Your task to perform on an android device: Go to sound settings Image 0: 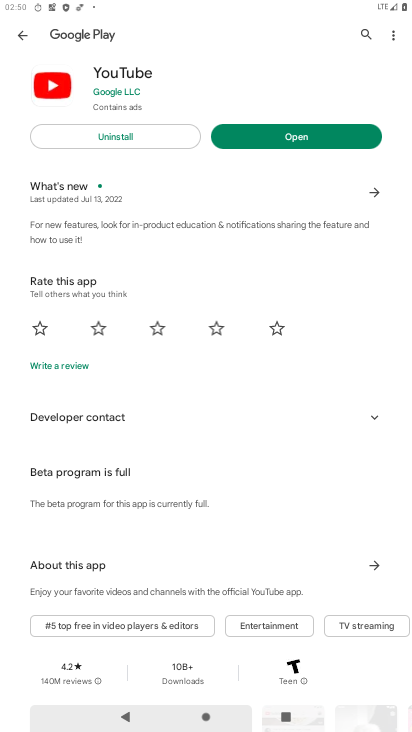
Step 0: press home button
Your task to perform on an android device: Go to sound settings Image 1: 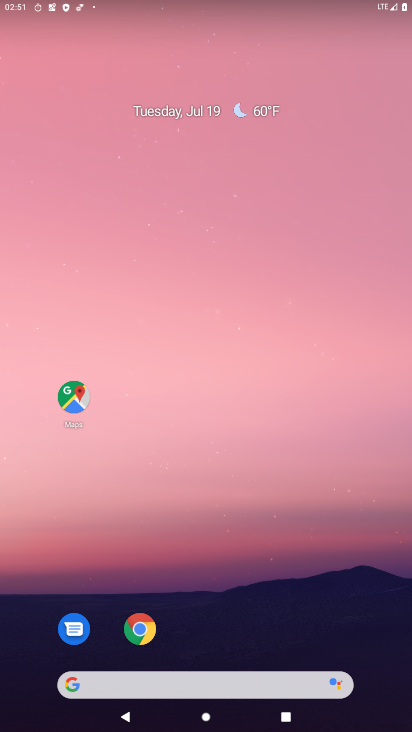
Step 1: drag from (216, 620) to (229, 200)
Your task to perform on an android device: Go to sound settings Image 2: 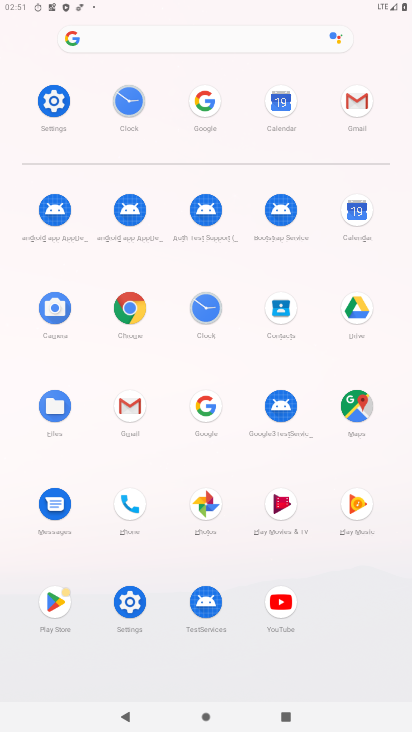
Step 2: click (75, 104)
Your task to perform on an android device: Go to sound settings Image 3: 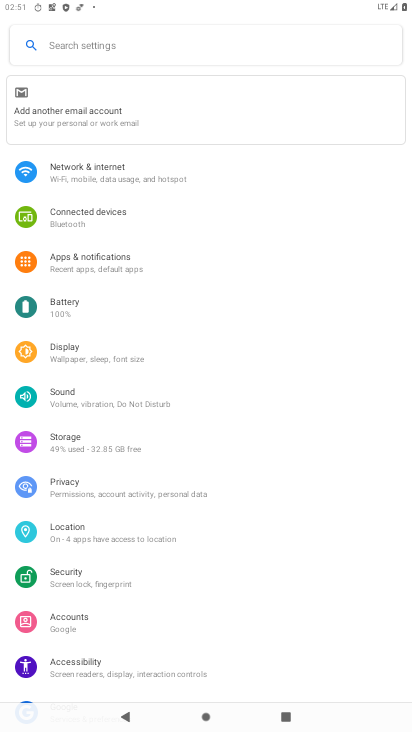
Step 3: click (119, 405)
Your task to perform on an android device: Go to sound settings Image 4: 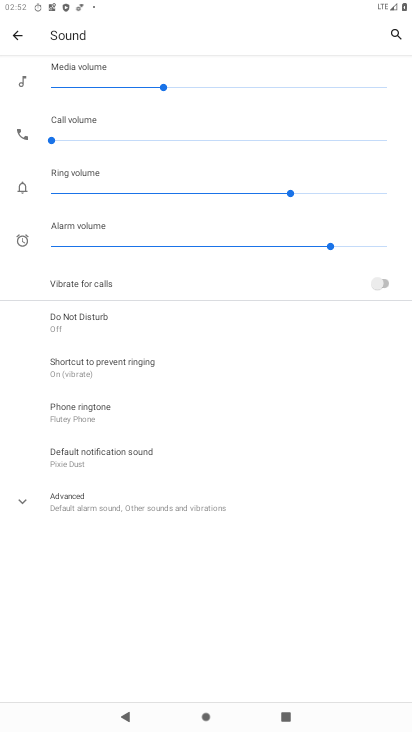
Step 4: task complete